Your task to perform on an android device: Show the shopping cart on ebay.com. Image 0: 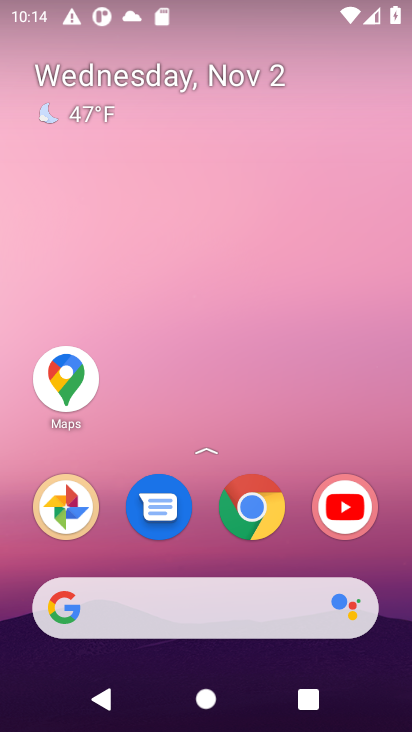
Step 0: click (214, 594)
Your task to perform on an android device: Show the shopping cart on ebay.com. Image 1: 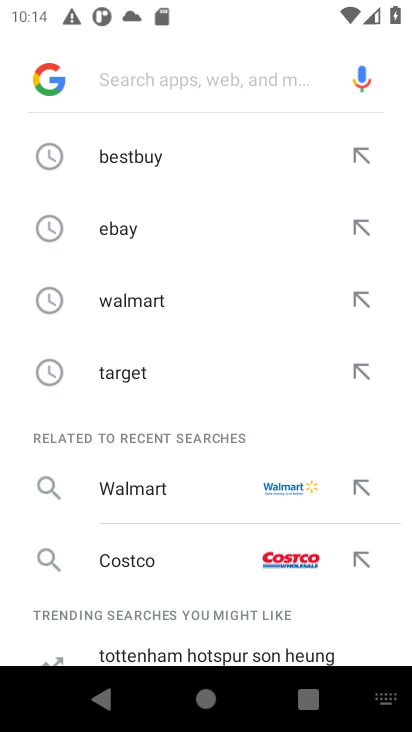
Step 1: click (124, 249)
Your task to perform on an android device: Show the shopping cart on ebay.com. Image 2: 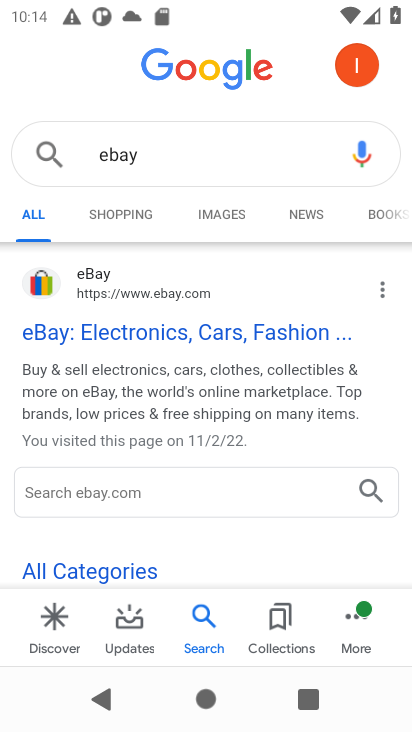
Step 2: click (107, 343)
Your task to perform on an android device: Show the shopping cart on ebay.com. Image 3: 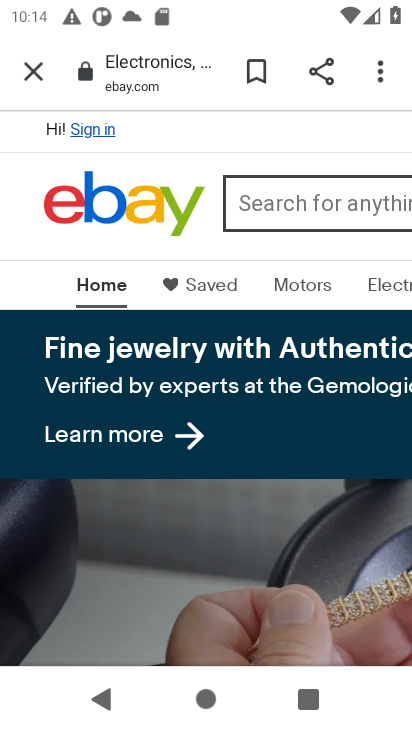
Step 3: task complete